Your task to perform on an android device: Turn on the flashlight Image 0: 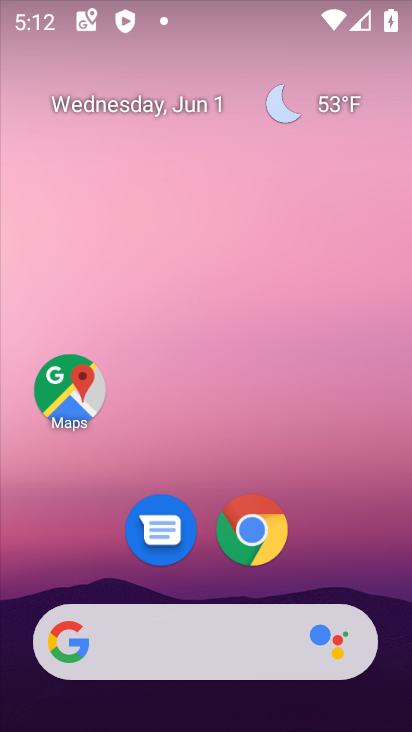
Step 0: drag from (200, 573) to (234, 169)
Your task to perform on an android device: Turn on the flashlight Image 1: 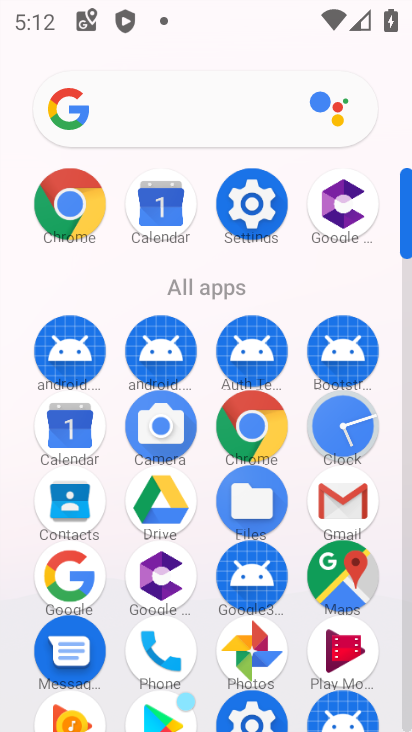
Step 1: task complete